Your task to perform on an android device: Turn off the flashlight Image 0: 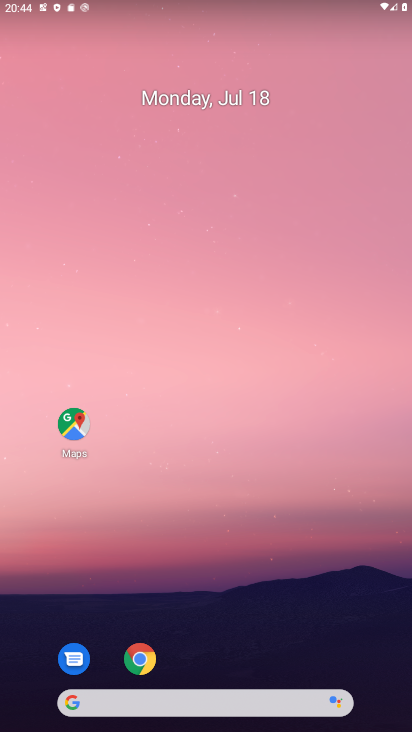
Step 0: drag from (258, 640) to (168, 16)
Your task to perform on an android device: Turn off the flashlight Image 1: 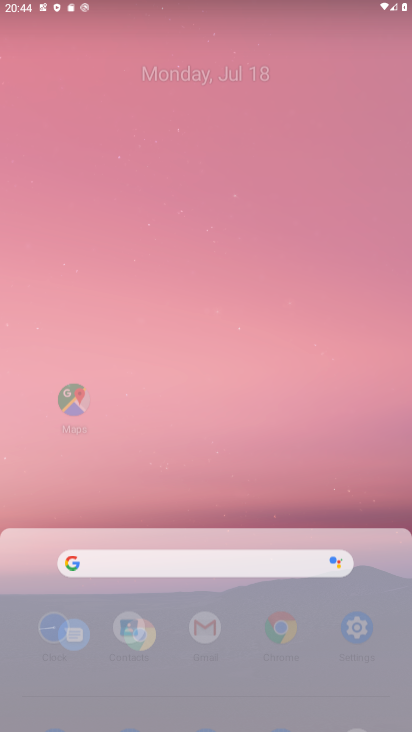
Step 1: task complete